Your task to perform on an android device: Open Google Maps Image 0: 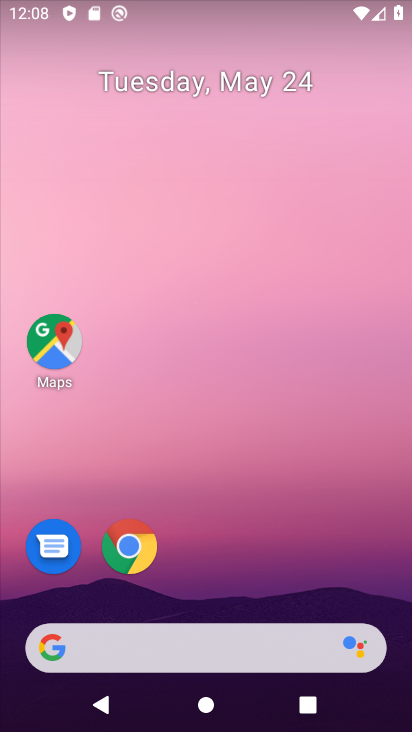
Step 0: drag from (332, 189) to (341, 0)
Your task to perform on an android device: Open Google Maps Image 1: 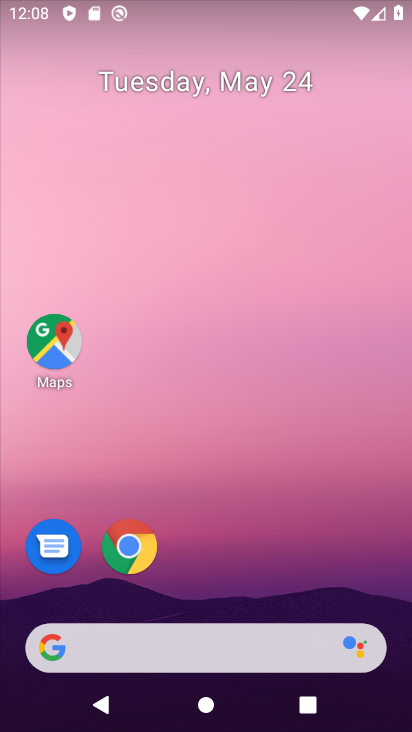
Step 1: drag from (258, 644) to (173, 33)
Your task to perform on an android device: Open Google Maps Image 2: 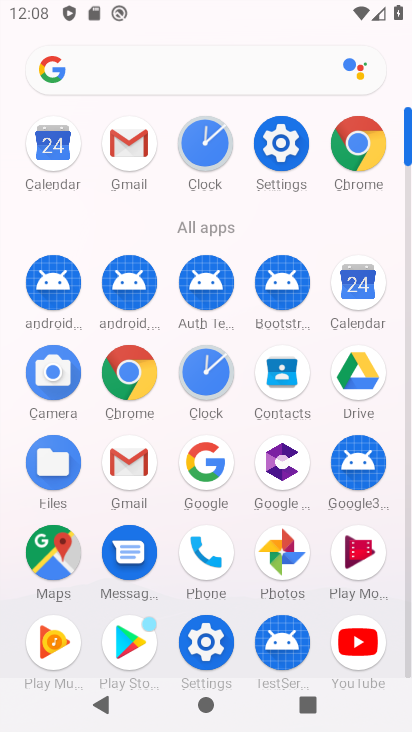
Step 2: click (52, 539)
Your task to perform on an android device: Open Google Maps Image 3: 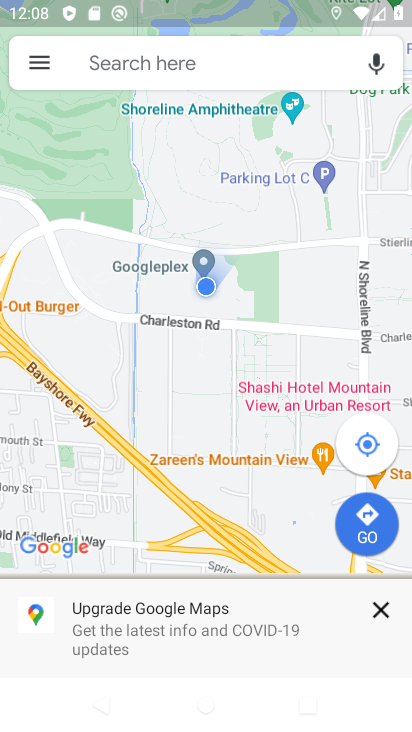
Step 3: task complete